Your task to perform on an android device: turn off data saver in the chrome app Image 0: 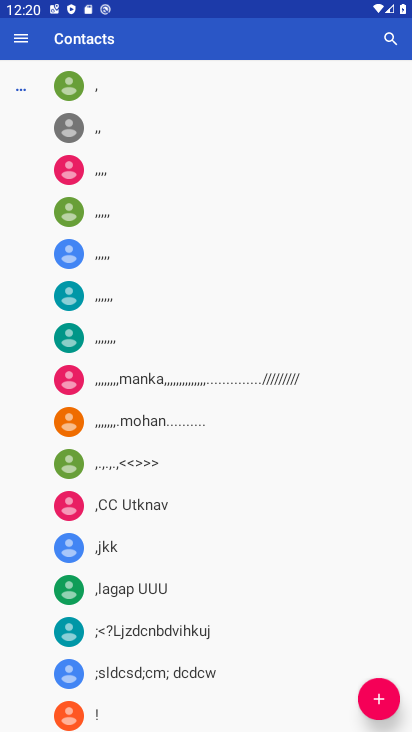
Step 0: press home button
Your task to perform on an android device: turn off data saver in the chrome app Image 1: 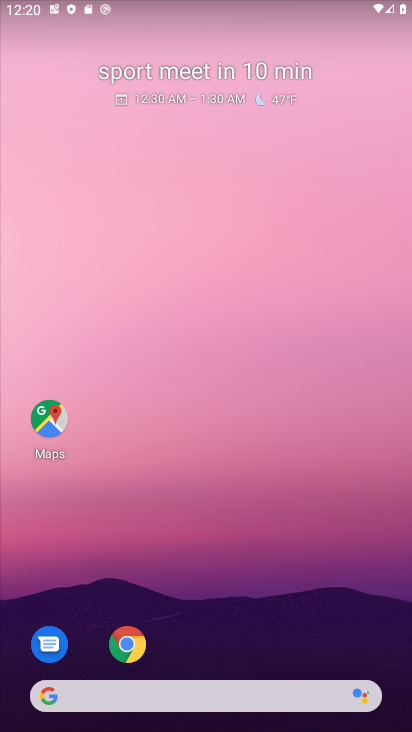
Step 1: drag from (286, 665) to (215, 301)
Your task to perform on an android device: turn off data saver in the chrome app Image 2: 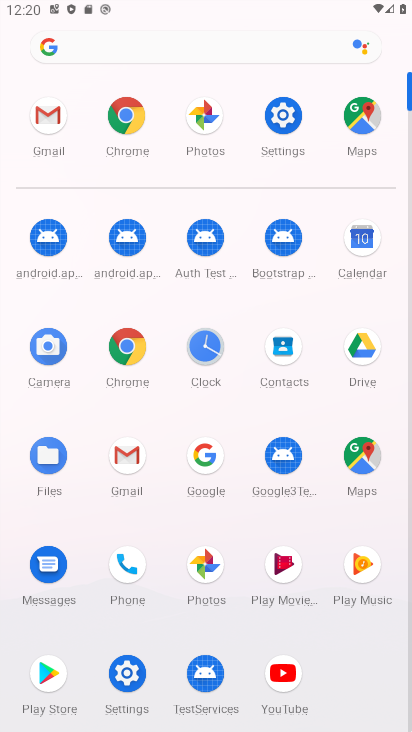
Step 2: drag from (211, 625) to (203, 316)
Your task to perform on an android device: turn off data saver in the chrome app Image 3: 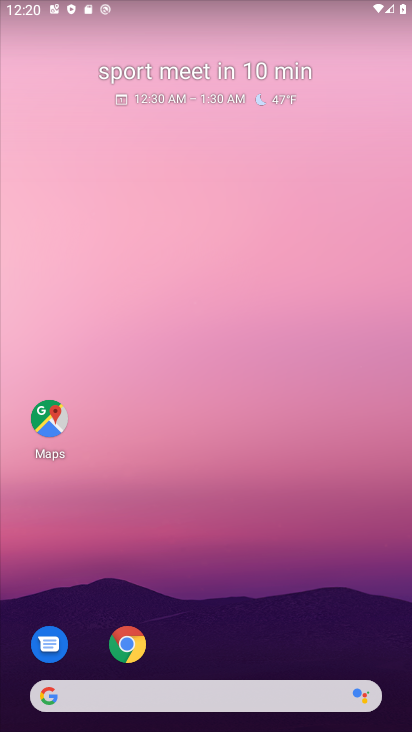
Step 3: click (129, 353)
Your task to perform on an android device: turn off data saver in the chrome app Image 4: 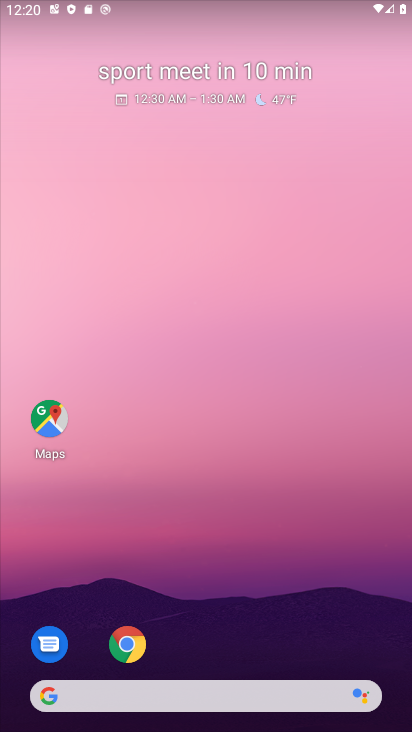
Step 4: drag from (276, 609) to (242, 232)
Your task to perform on an android device: turn off data saver in the chrome app Image 5: 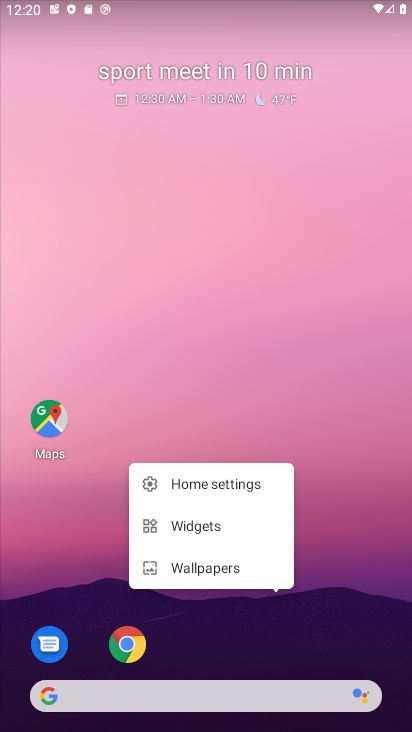
Step 5: drag from (377, 580) to (330, 169)
Your task to perform on an android device: turn off data saver in the chrome app Image 6: 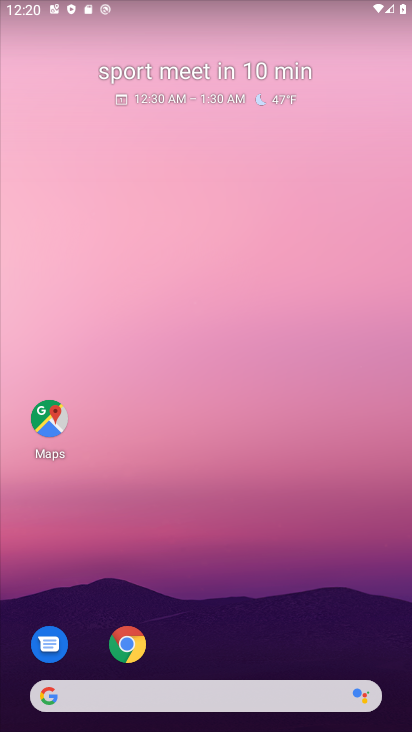
Step 6: drag from (236, 530) to (205, 187)
Your task to perform on an android device: turn off data saver in the chrome app Image 7: 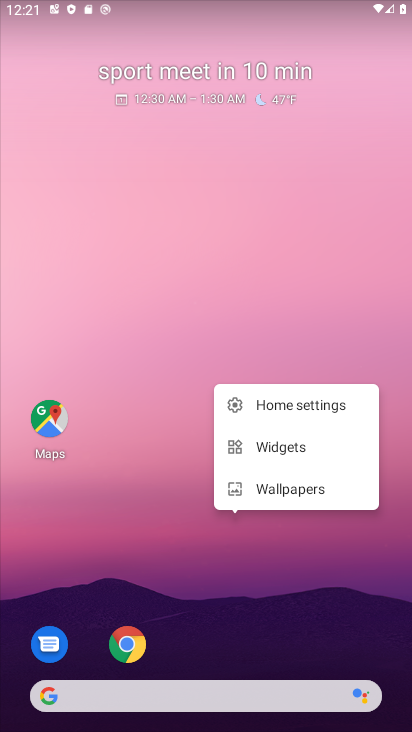
Step 7: click (222, 587)
Your task to perform on an android device: turn off data saver in the chrome app Image 8: 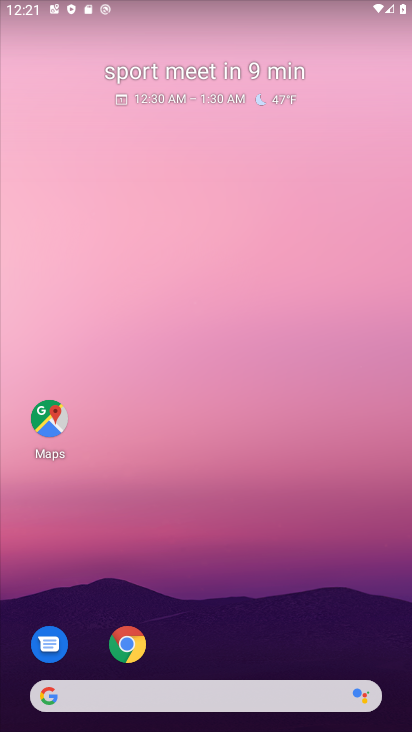
Step 8: drag from (217, 634) to (212, 204)
Your task to perform on an android device: turn off data saver in the chrome app Image 9: 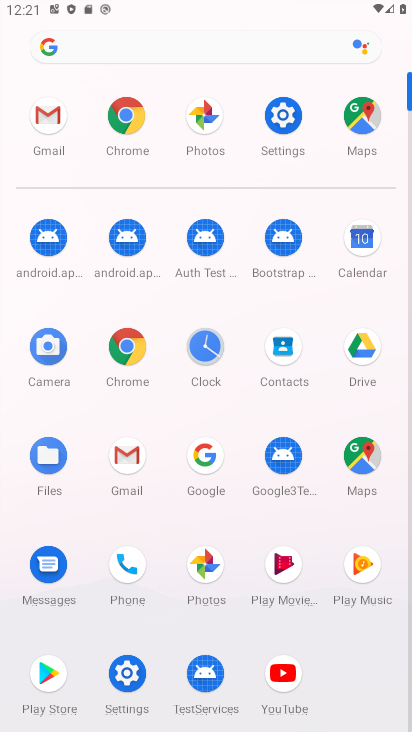
Step 9: click (143, 361)
Your task to perform on an android device: turn off data saver in the chrome app Image 10: 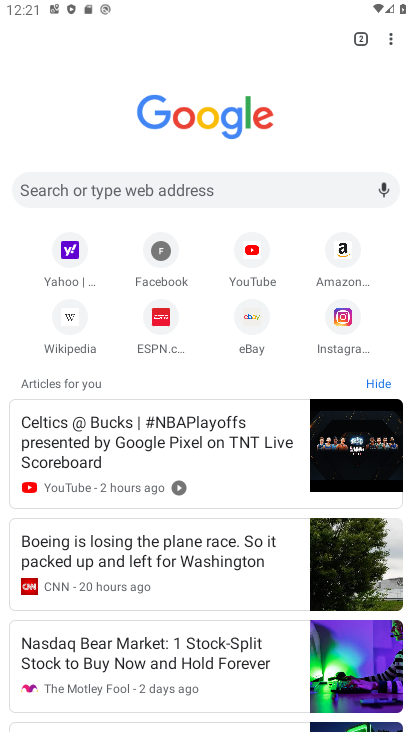
Step 10: click (388, 42)
Your task to perform on an android device: turn off data saver in the chrome app Image 11: 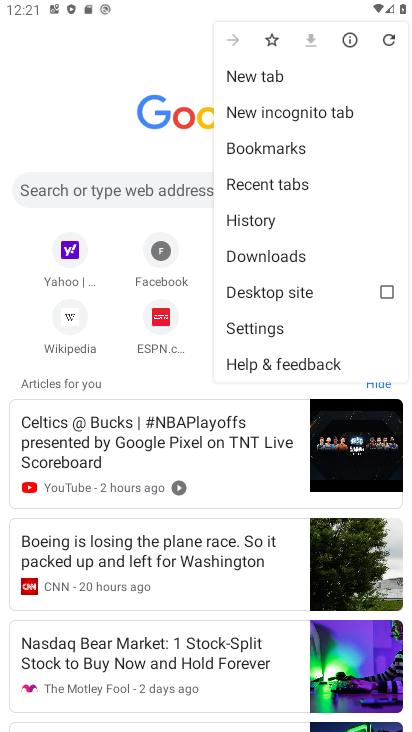
Step 11: click (297, 338)
Your task to perform on an android device: turn off data saver in the chrome app Image 12: 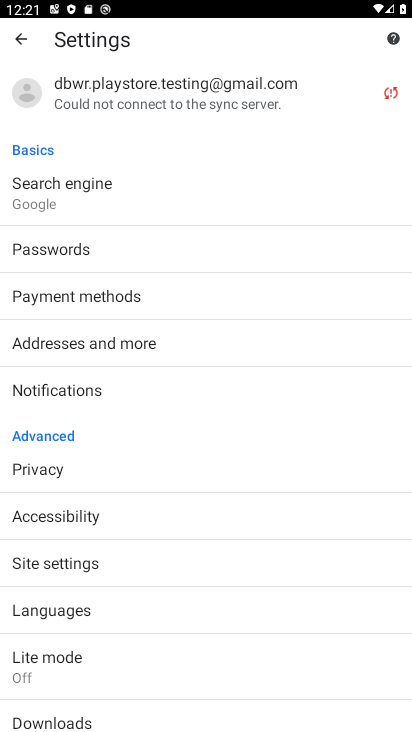
Step 12: click (105, 665)
Your task to perform on an android device: turn off data saver in the chrome app Image 13: 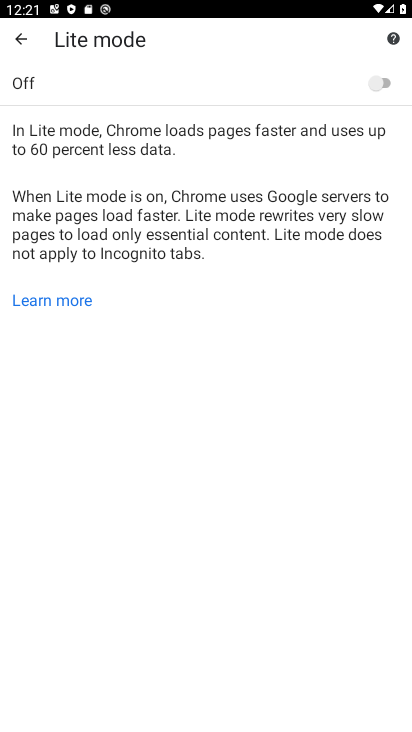
Step 13: task complete